Your task to perform on an android device: Open accessibility settings Image 0: 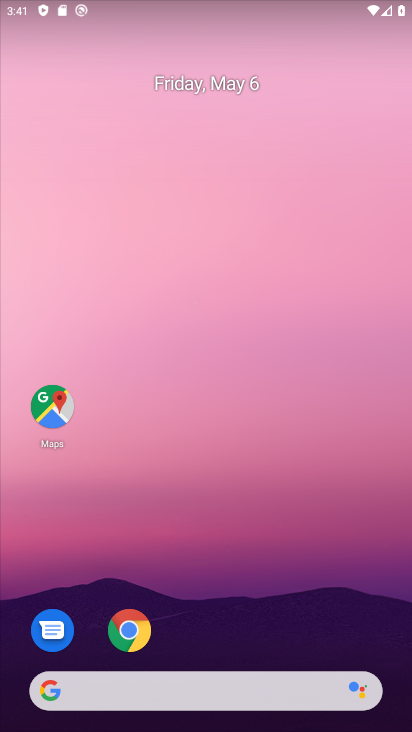
Step 0: drag from (235, 609) to (297, 141)
Your task to perform on an android device: Open accessibility settings Image 1: 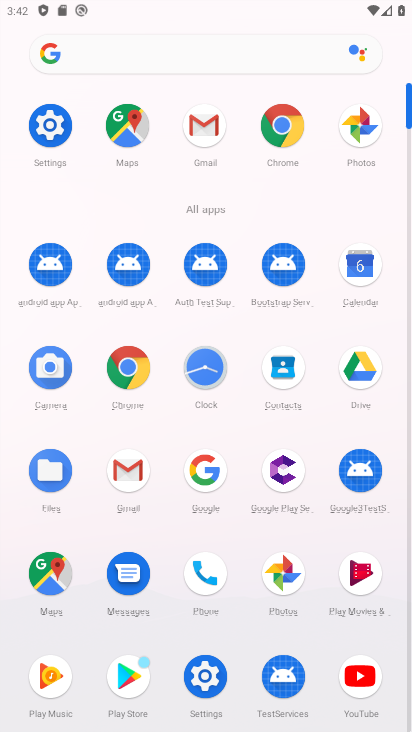
Step 1: click (46, 119)
Your task to perform on an android device: Open accessibility settings Image 2: 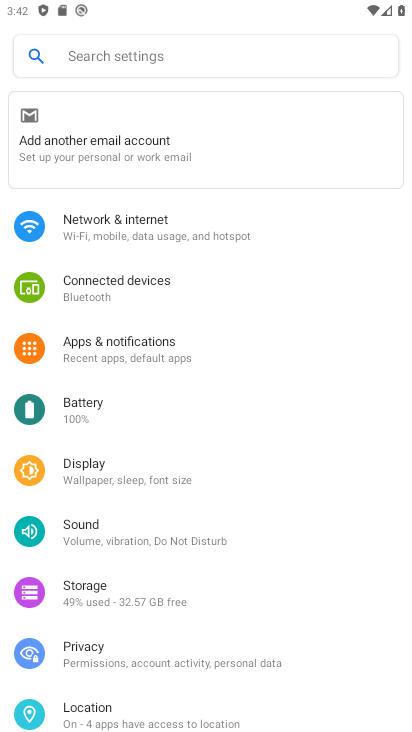
Step 2: drag from (215, 596) to (274, 165)
Your task to perform on an android device: Open accessibility settings Image 3: 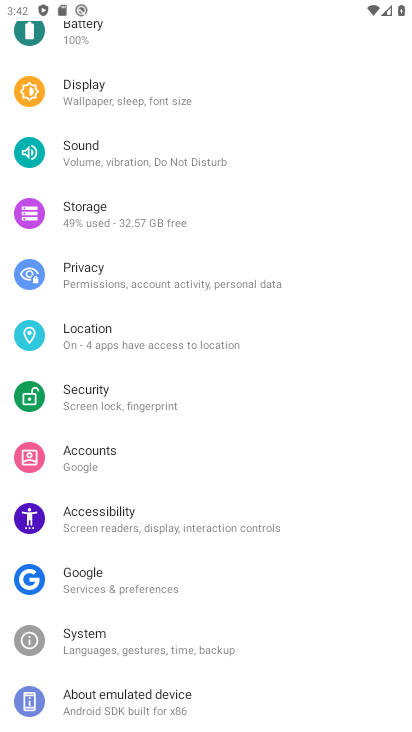
Step 3: click (115, 520)
Your task to perform on an android device: Open accessibility settings Image 4: 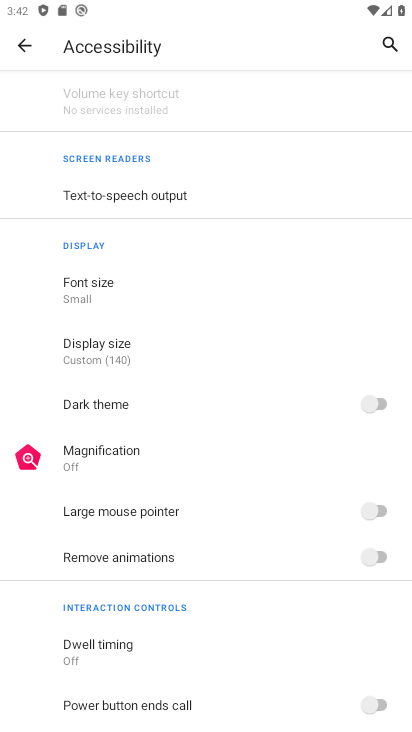
Step 4: task complete